Your task to perform on an android device: move a message to another label in the gmail app Image 0: 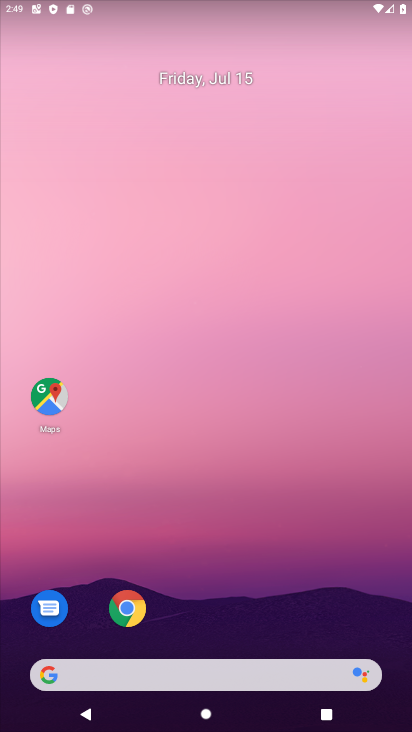
Step 0: drag from (220, 666) to (252, 210)
Your task to perform on an android device: move a message to another label in the gmail app Image 1: 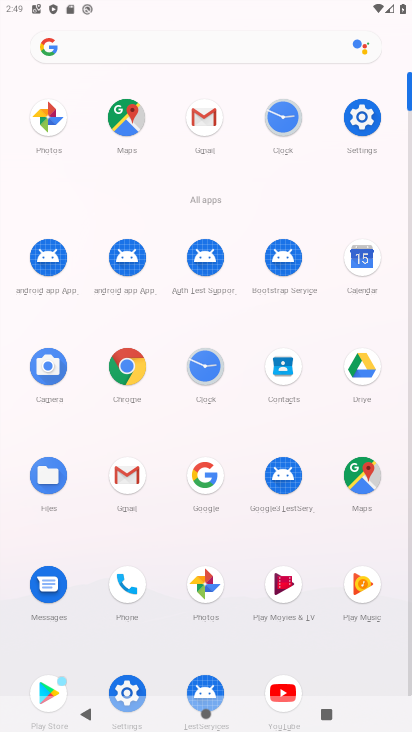
Step 1: click (122, 484)
Your task to perform on an android device: move a message to another label in the gmail app Image 2: 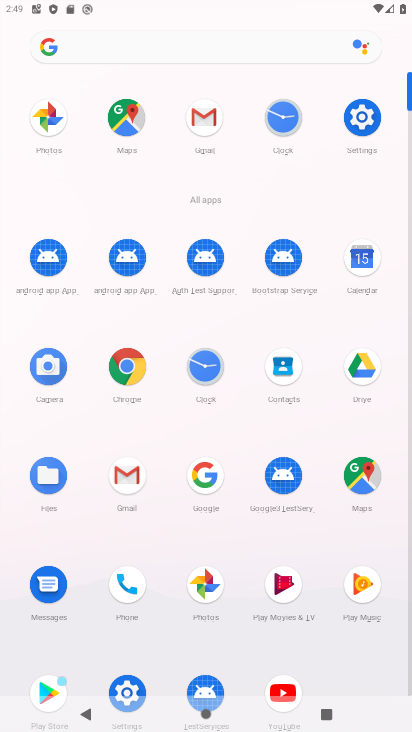
Step 2: click (122, 483)
Your task to perform on an android device: move a message to another label in the gmail app Image 3: 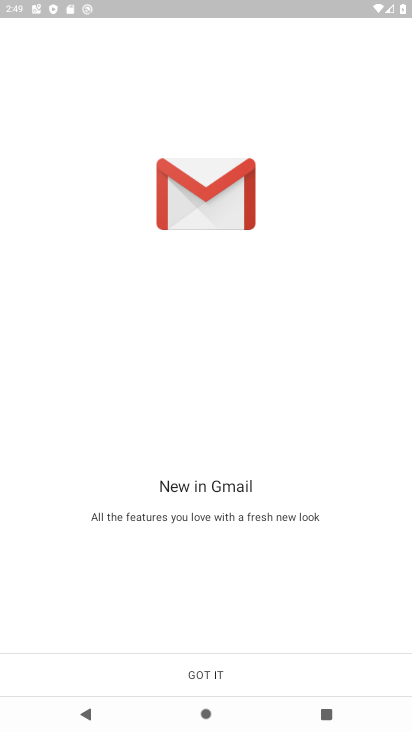
Step 3: click (200, 644)
Your task to perform on an android device: move a message to another label in the gmail app Image 4: 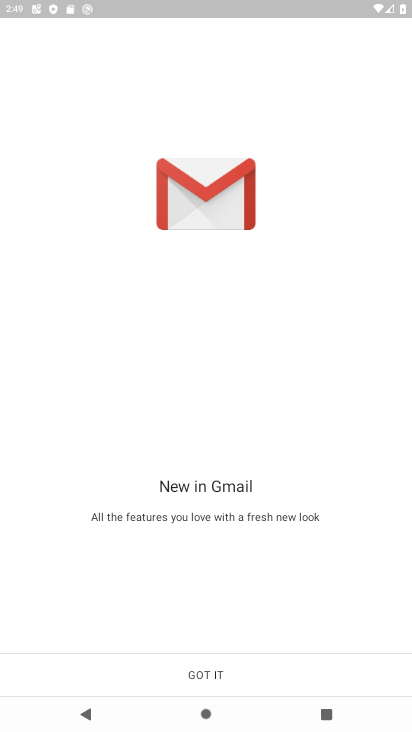
Step 4: click (205, 665)
Your task to perform on an android device: move a message to another label in the gmail app Image 5: 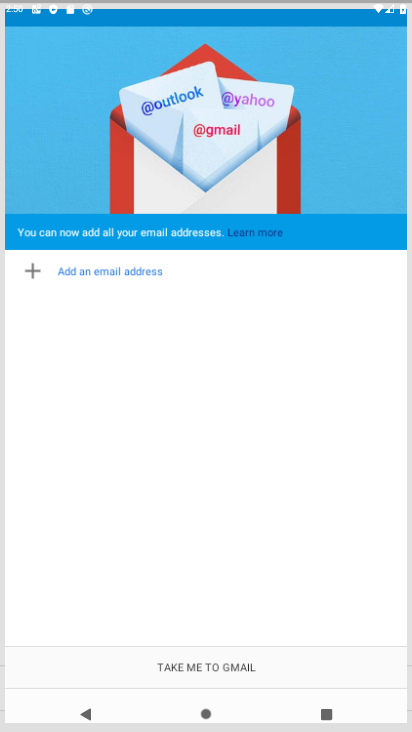
Step 5: click (213, 674)
Your task to perform on an android device: move a message to another label in the gmail app Image 6: 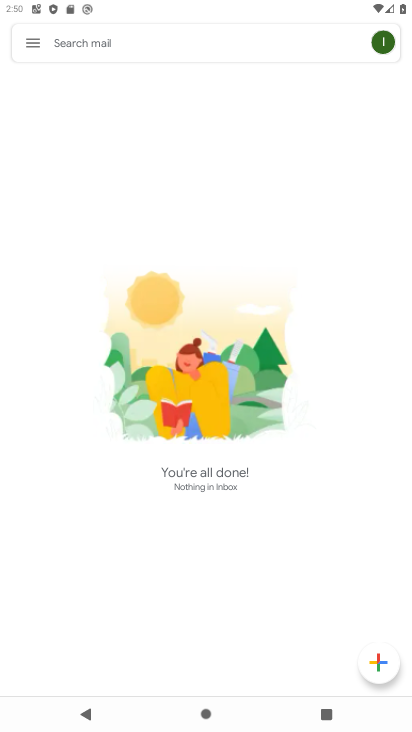
Step 6: click (38, 40)
Your task to perform on an android device: move a message to another label in the gmail app Image 7: 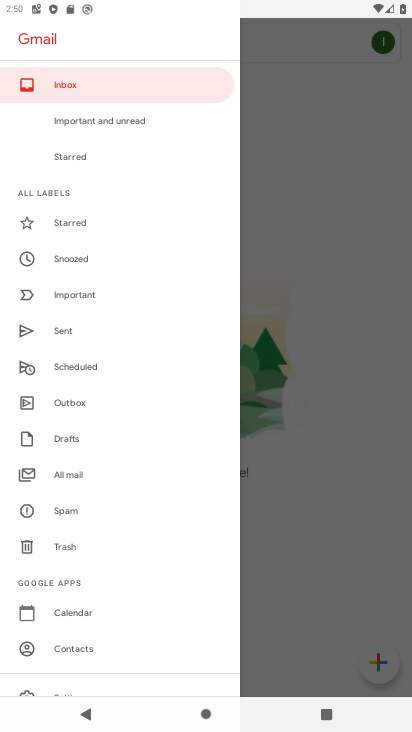
Step 7: click (87, 479)
Your task to perform on an android device: move a message to another label in the gmail app Image 8: 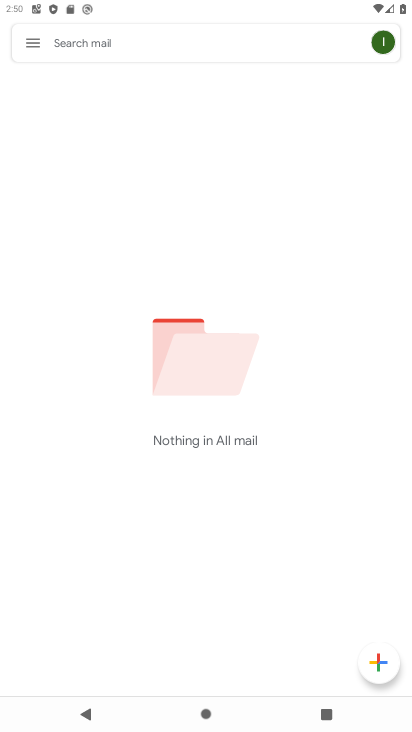
Step 8: task complete